Your task to perform on an android device: open sync settings in chrome Image 0: 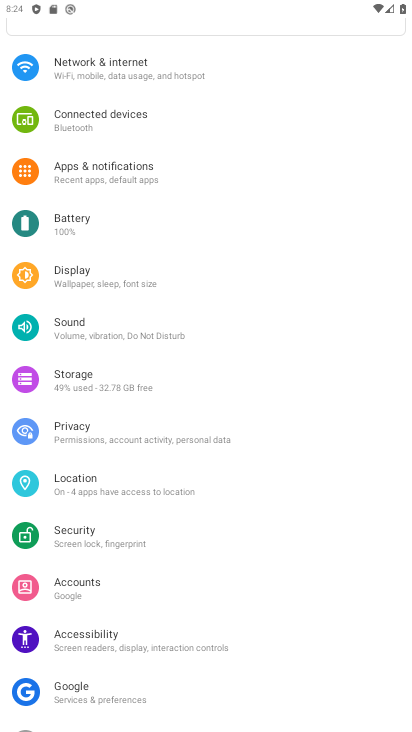
Step 0: press home button
Your task to perform on an android device: open sync settings in chrome Image 1: 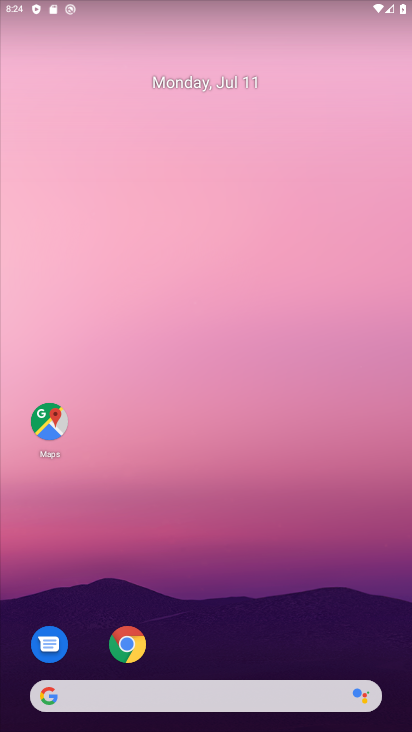
Step 1: drag from (188, 661) to (273, 63)
Your task to perform on an android device: open sync settings in chrome Image 2: 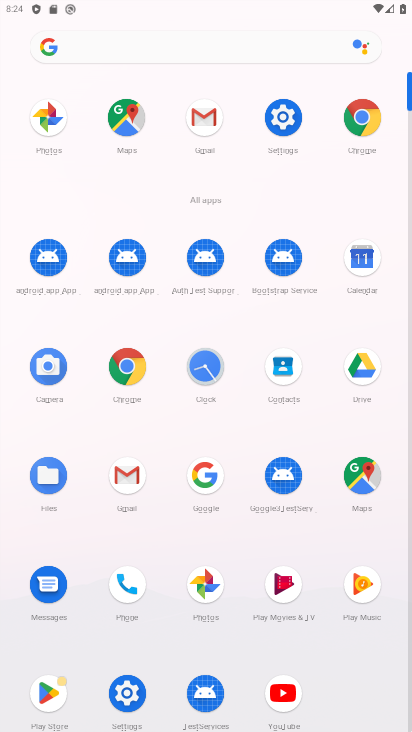
Step 2: click (128, 378)
Your task to perform on an android device: open sync settings in chrome Image 3: 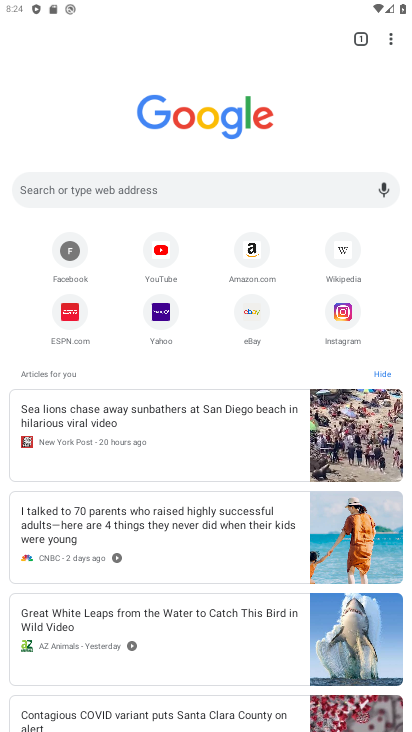
Step 3: drag from (392, 42) to (276, 313)
Your task to perform on an android device: open sync settings in chrome Image 4: 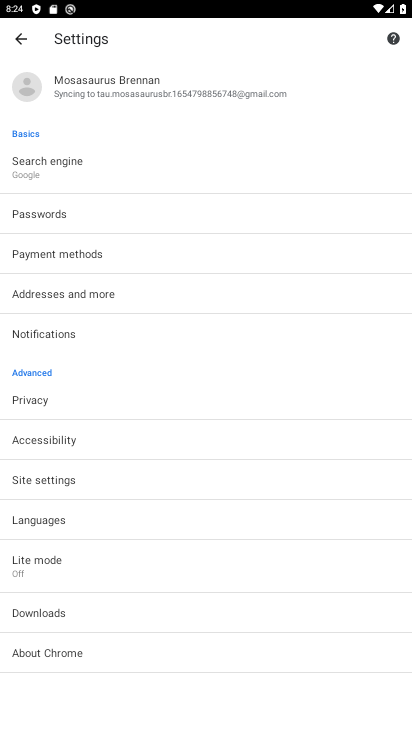
Step 4: click (170, 100)
Your task to perform on an android device: open sync settings in chrome Image 5: 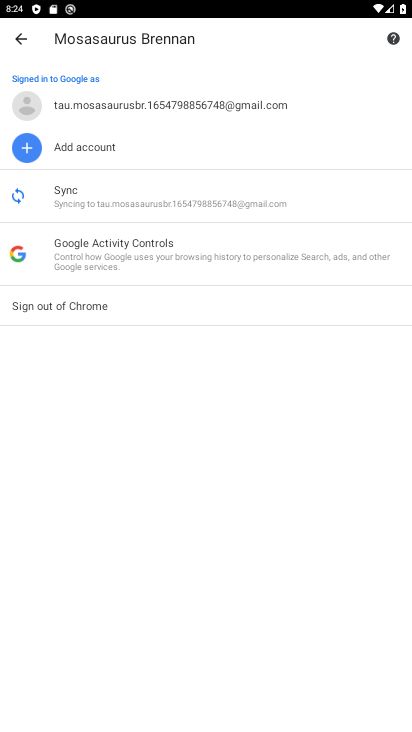
Step 5: click (200, 203)
Your task to perform on an android device: open sync settings in chrome Image 6: 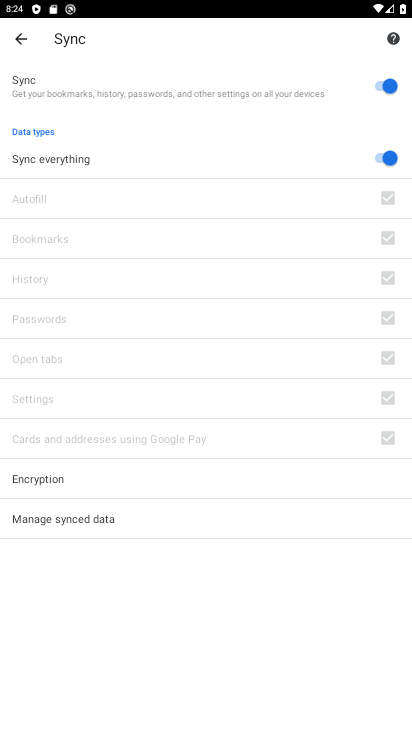
Step 6: task complete